Your task to perform on an android device: turn on the 12-hour format for clock Image 0: 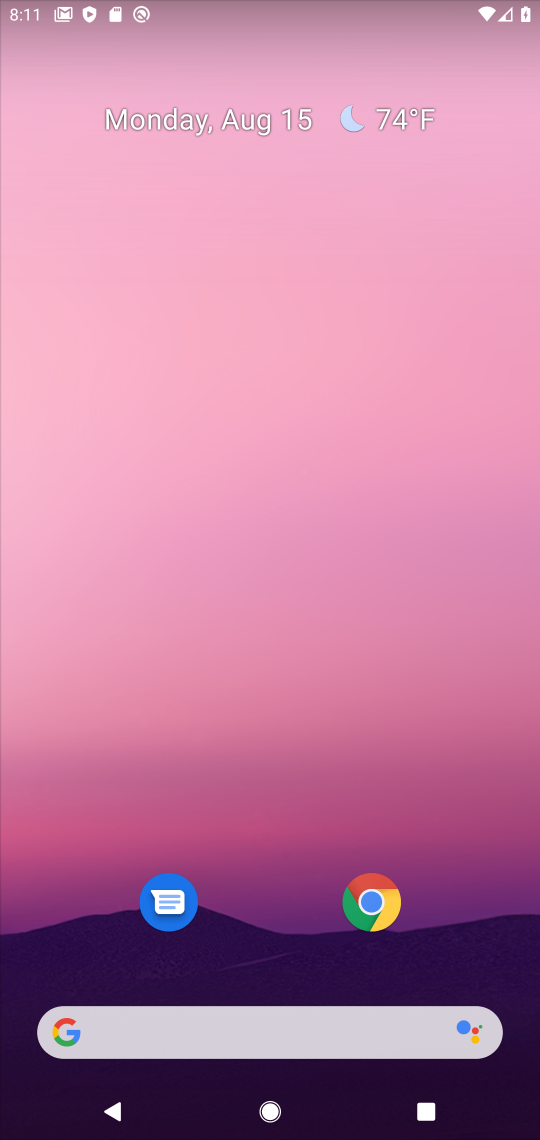
Step 0: drag from (449, 947) to (338, 90)
Your task to perform on an android device: turn on the 12-hour format for clock Image 1: 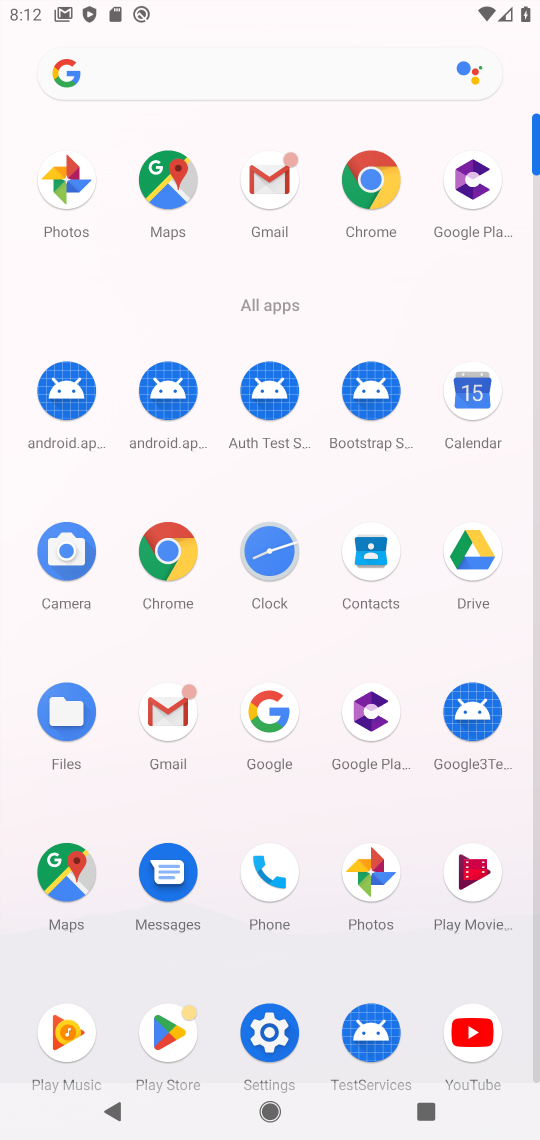
Step 1: click (268, 566)
Your task to perform on an android device: turn on the 12-hour format for clock Image 2: 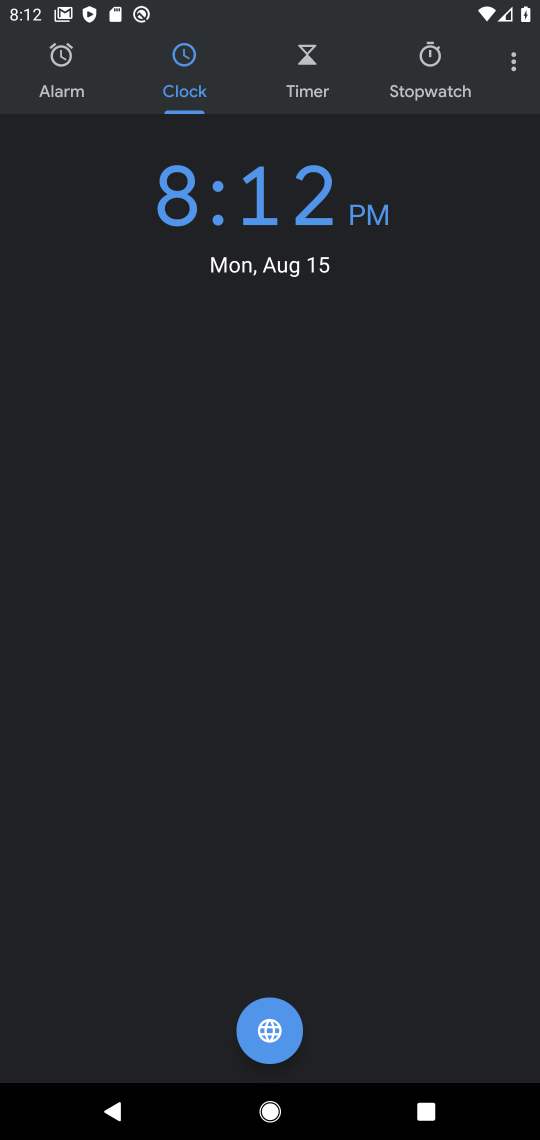
Step 2: click (510, 62)
Your task to perform on an android device: turn on the 12-hour format for clock Image 3: 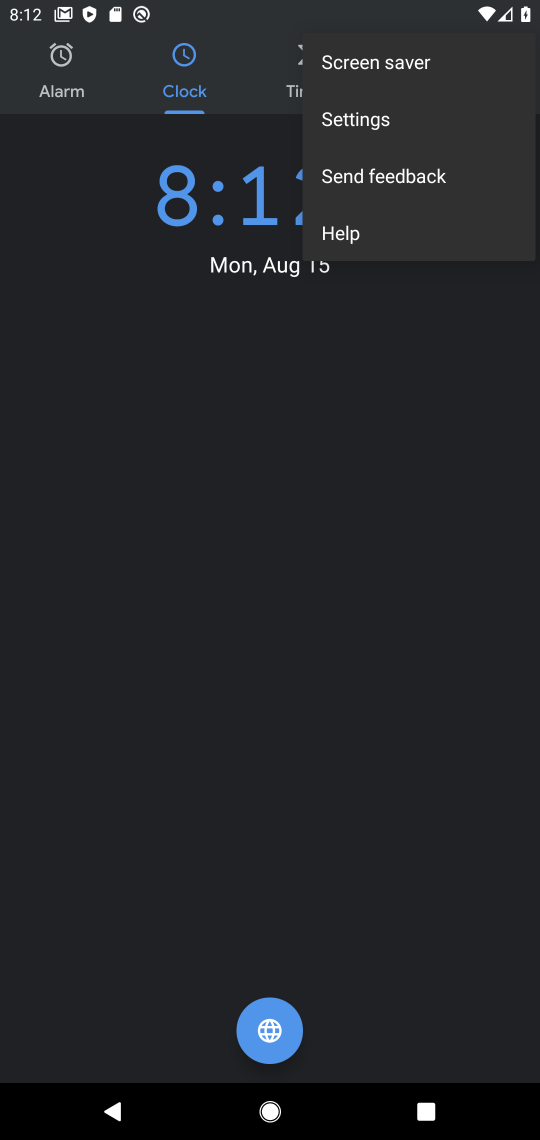
Step 3: click (381, 126)
Your task to perform on an android device: turn on the 12-hour format for clock Image 4: 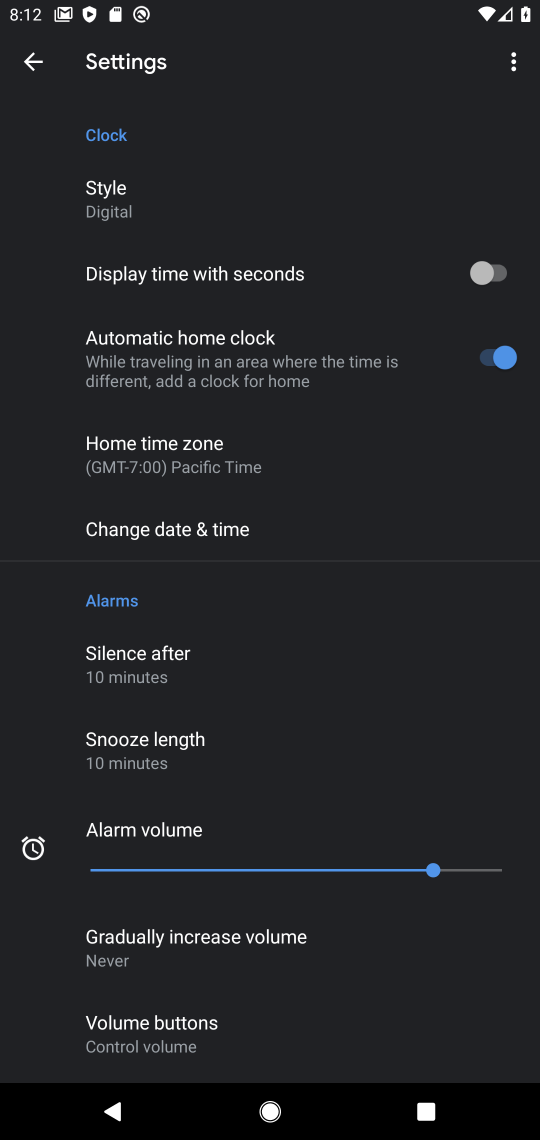
Step 4: click (184, 527)
Your task to perform on an android device: turn on the 12-hour format for clock Image 5: 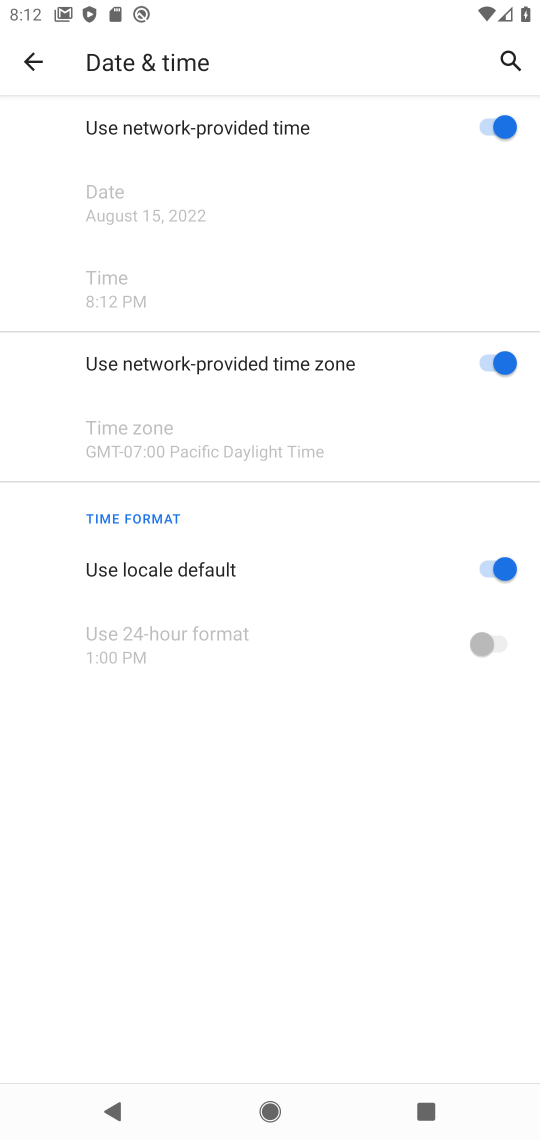
Step 5: task complete